Your task to perform on an android device: open wifi settings Image 0: 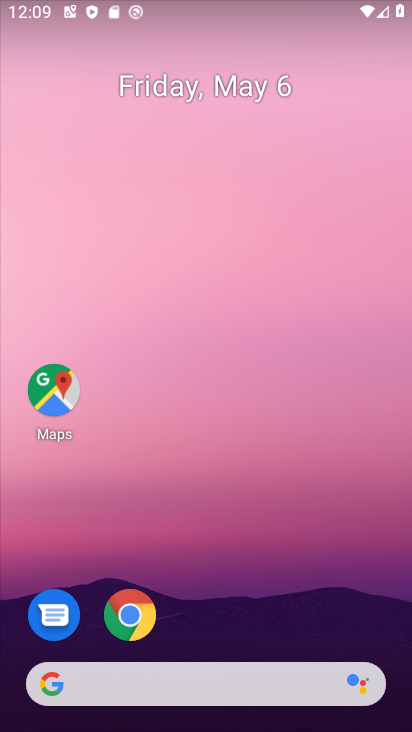
Step 0: drag from (257, 604) to (181, 151)
Your task to perform on an android device: open wifi settings Image 1: 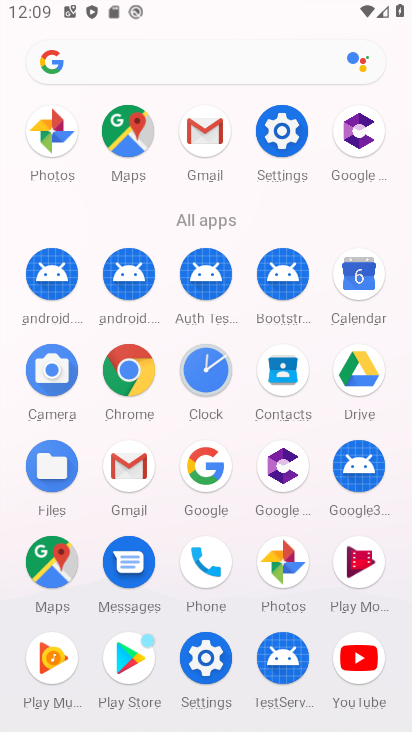
Step 1: click (282, 141)
Your task to perform on an android device: open wifi settings Image 2: 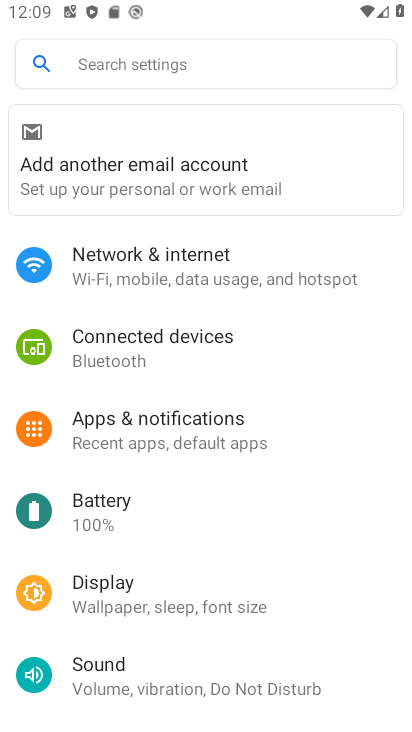
Step 2: click (168, 284)
Your task to perform on an android device: open wifi settings Image 3: 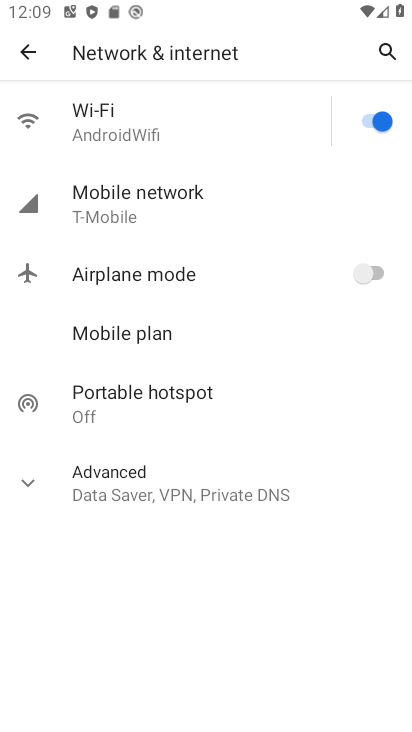
Step 3: click (86, 147)
Your task to perform on an android device: open wifi settings Image 4: 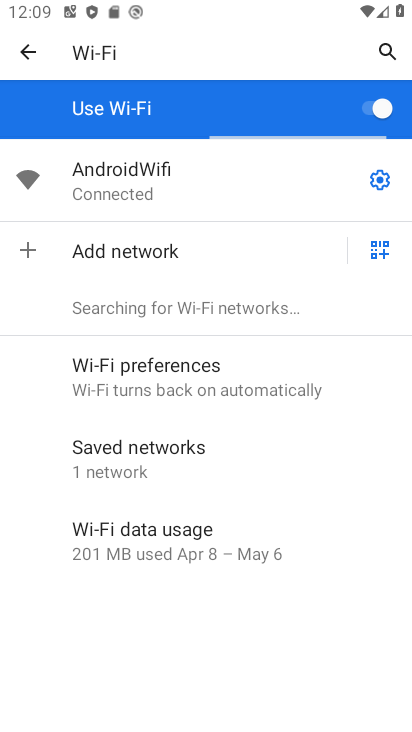
Step 4: task complete